Your task to perform on an android device: turn off wifi Image 0: 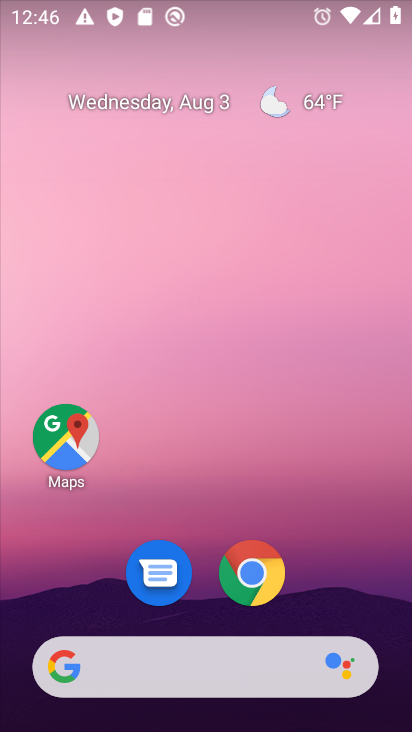
Step 0: drag from (170, 605) to (221, 116)
Your task to perform on an android device: turn off wifi Image 1: 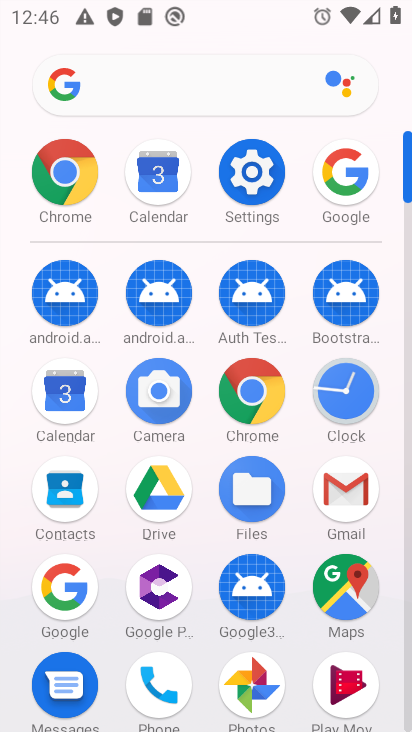
Step 1: click (257, 180)
Your task to perform on an android device: turn off wifi Image 2: 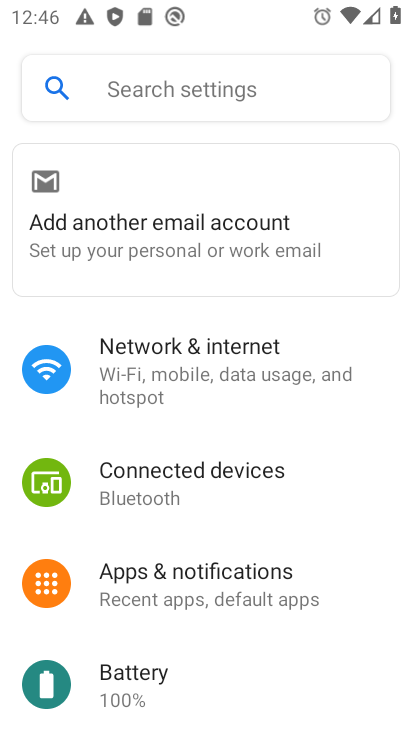
Step 2: click (207, 369)
Your task to perform on an android device: turn off wifi Image 3: 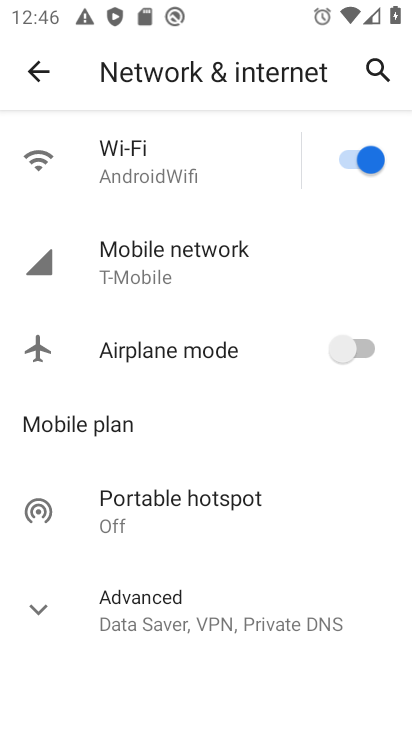
Step 3: click (351, 161)
Your task to perform on an android device: turn off wifi Image 4: 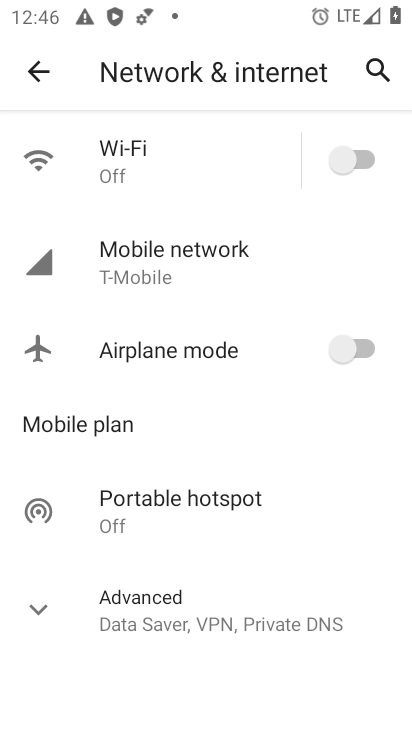
Step 4: task complete